Your task to perform on an android device: open a new tab in the chrome app Image 0: 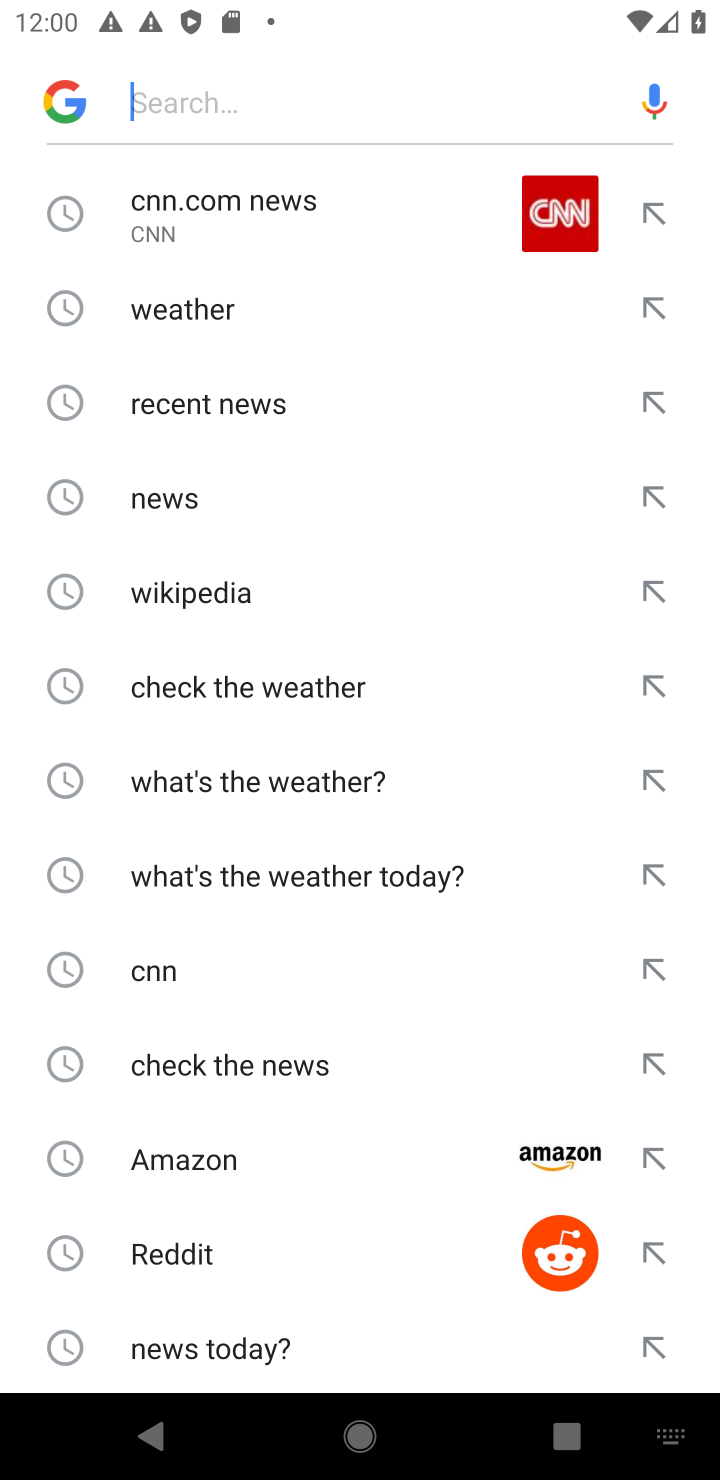
Step 0: press home button
Your task to perform on an android device: open a new tab in the chrome app Image 1: 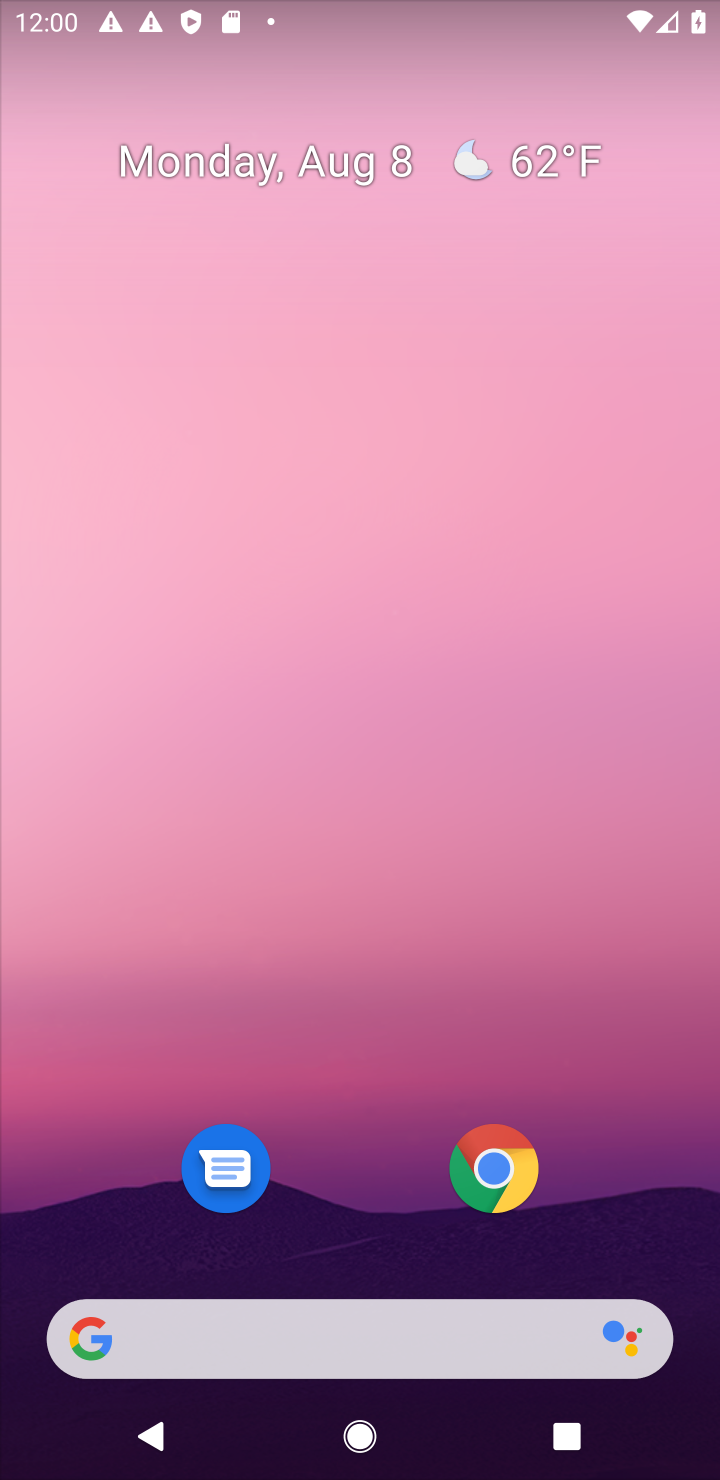
Step 1: click (480, 1170)
Your task to perform on an android device: open a new tab in the chrome app Image 2: 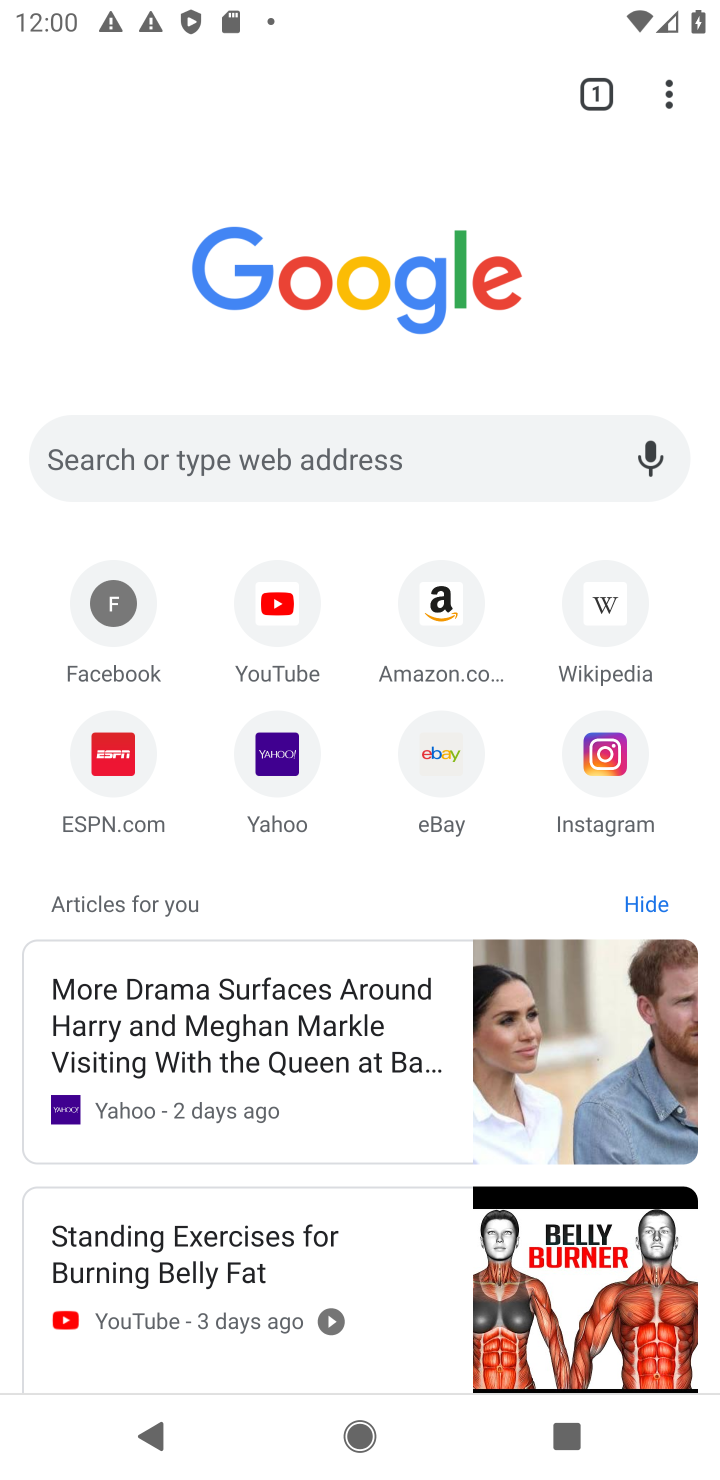
Step 2: click (689, 102)
Your task to perform on an android device: open a new tab in the chrome app Image 3: 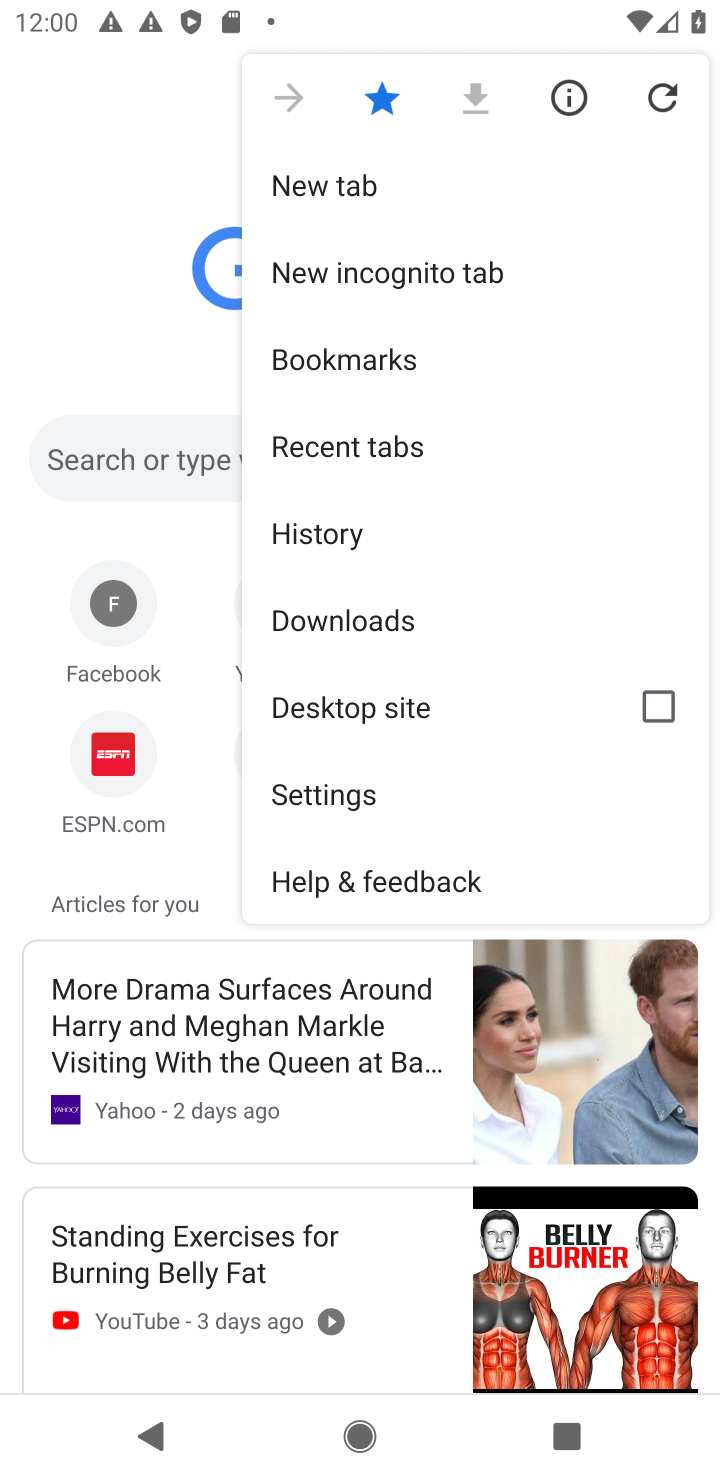
Step 3: click (121, 185)
Your task to perform on an android device: open a new tab in the chrome app Image 4: 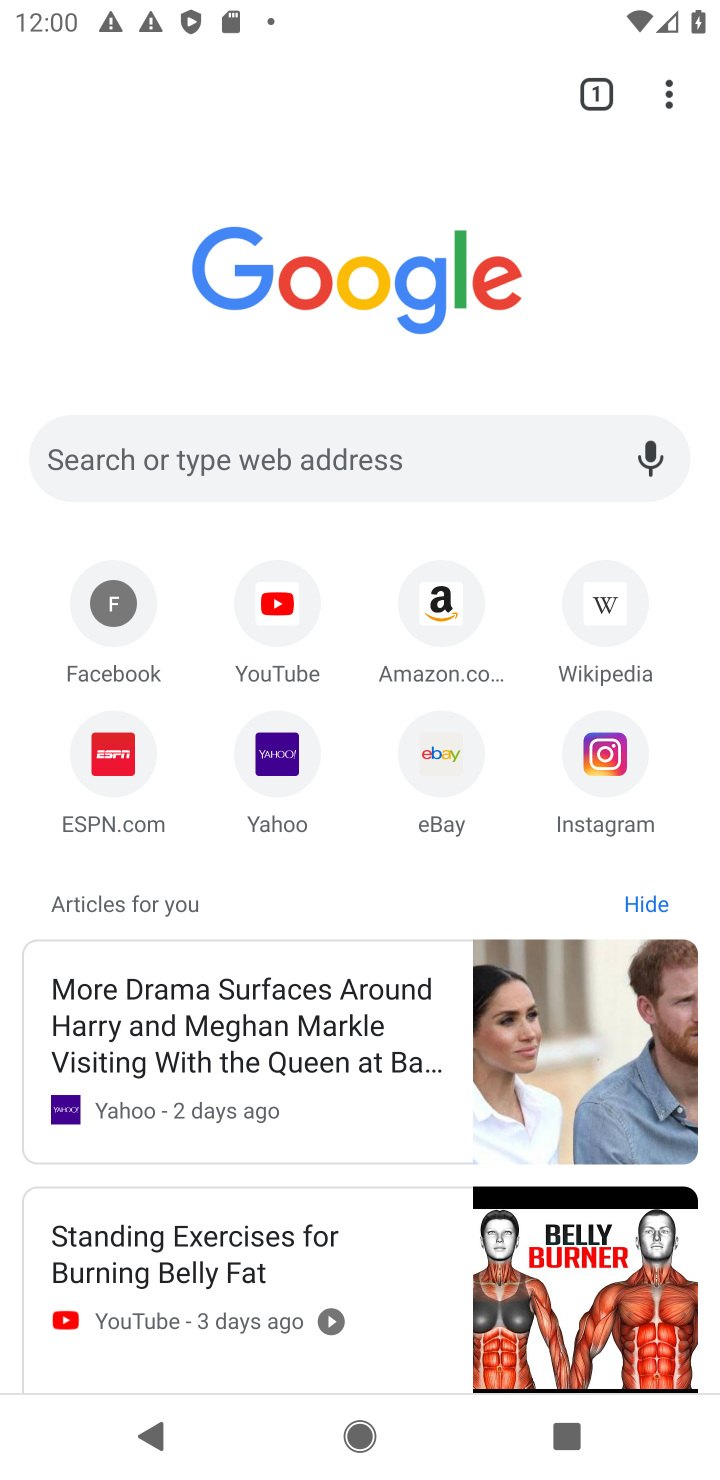
Step 4: click (590, 87)
Your task to perform on an android device: open a new tab in the chrome app Image 5: 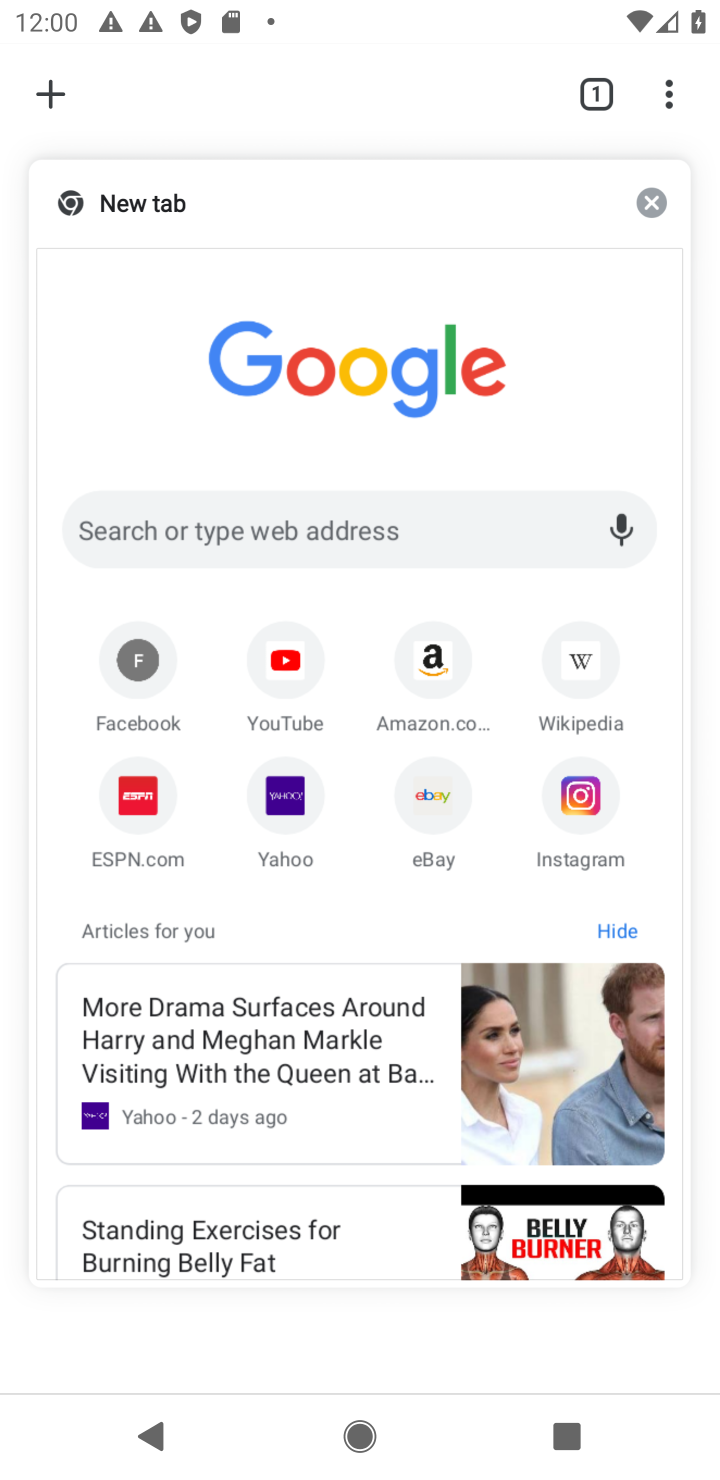
Step 5: click (60, 97)
Your task to perform on an android device: open a new tab in the chrome app Image 6: 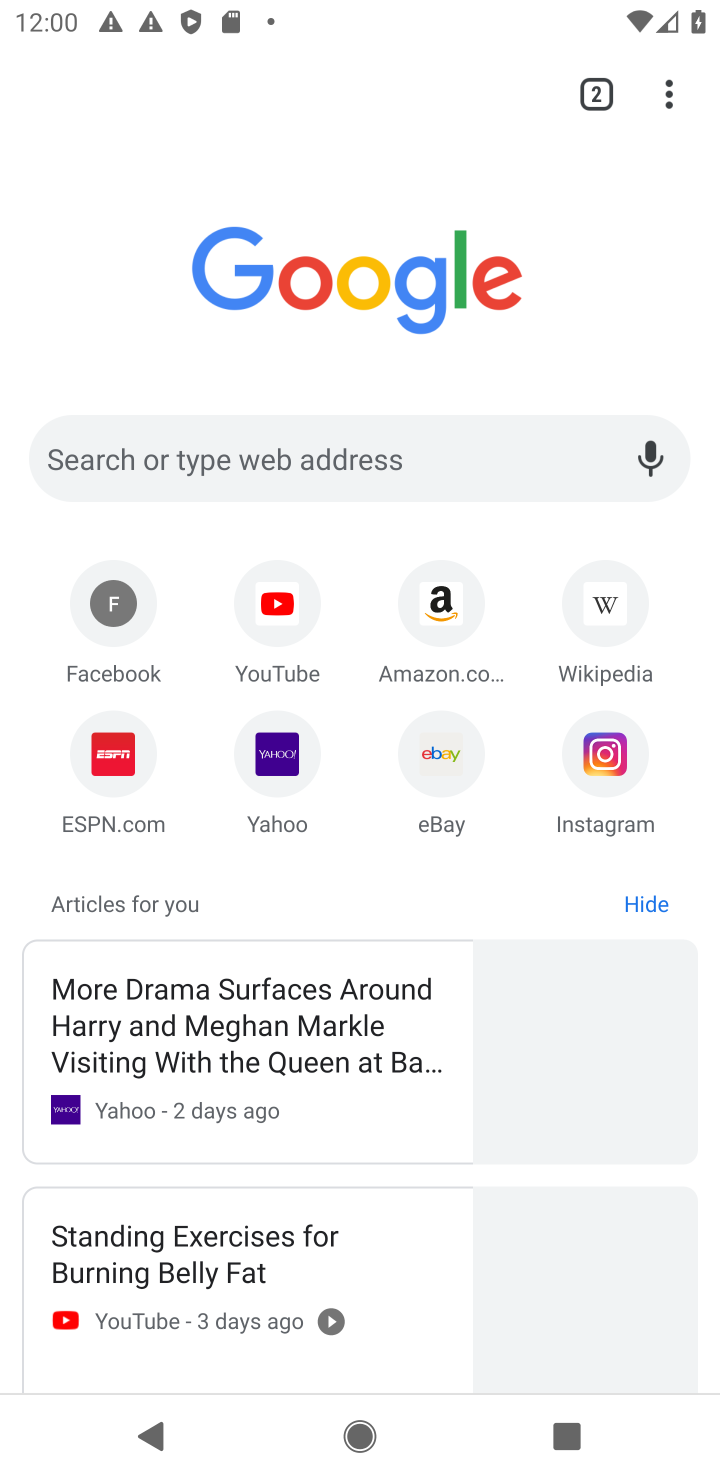
Step 6: task complete